Your task to perform on an android device: Open my contact list Image 0: 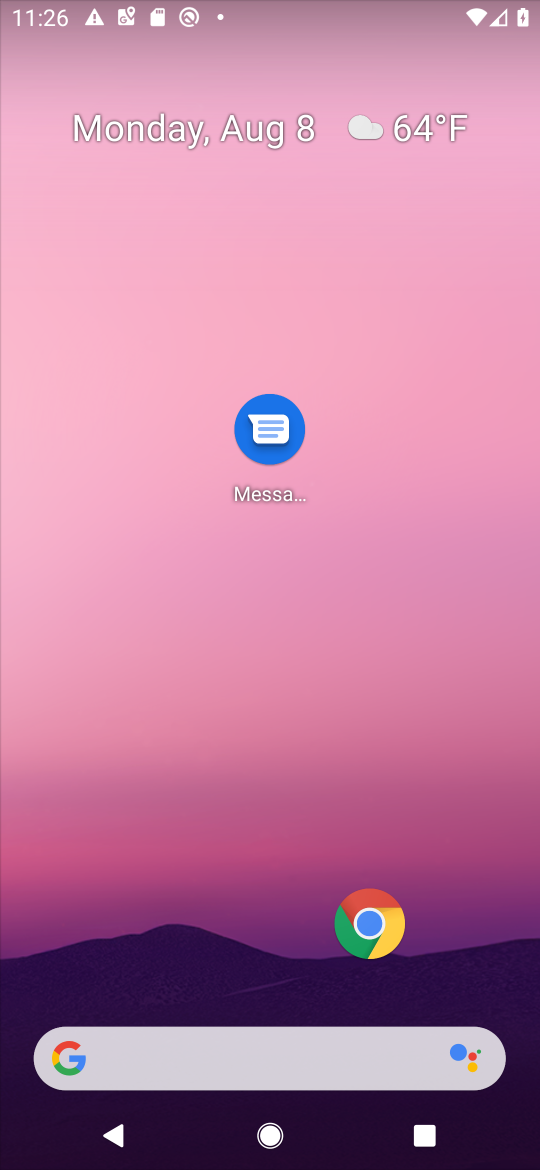
Step 0: drag from (46, 1097) to (222, 357)
Your task to perform on an android device: Open my contact list Image 1: 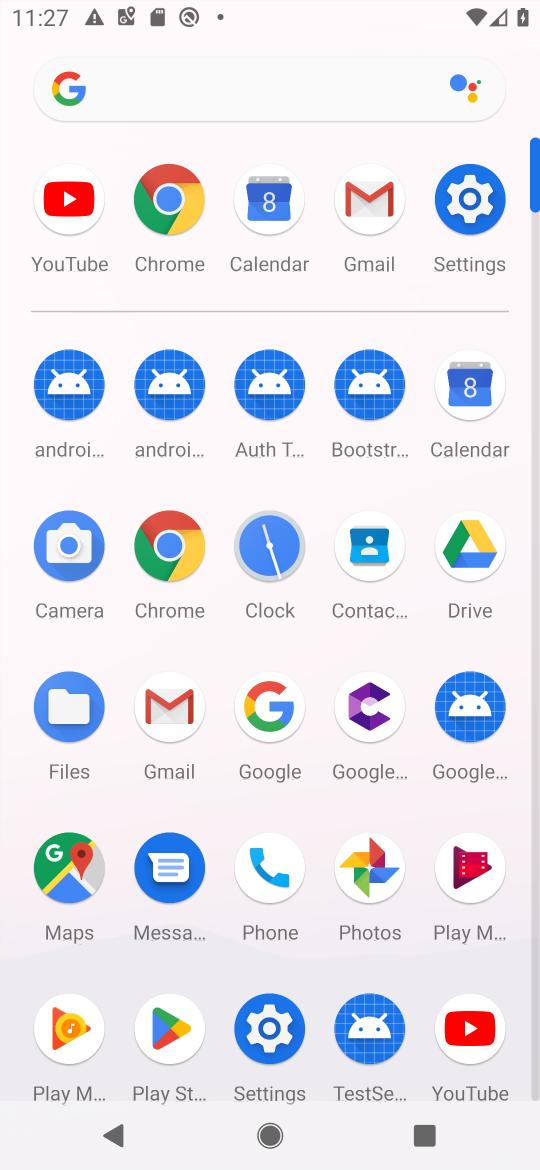
Step 1: click (269, 890)
Your task to perform on an android device: Open my contact list Image 2: 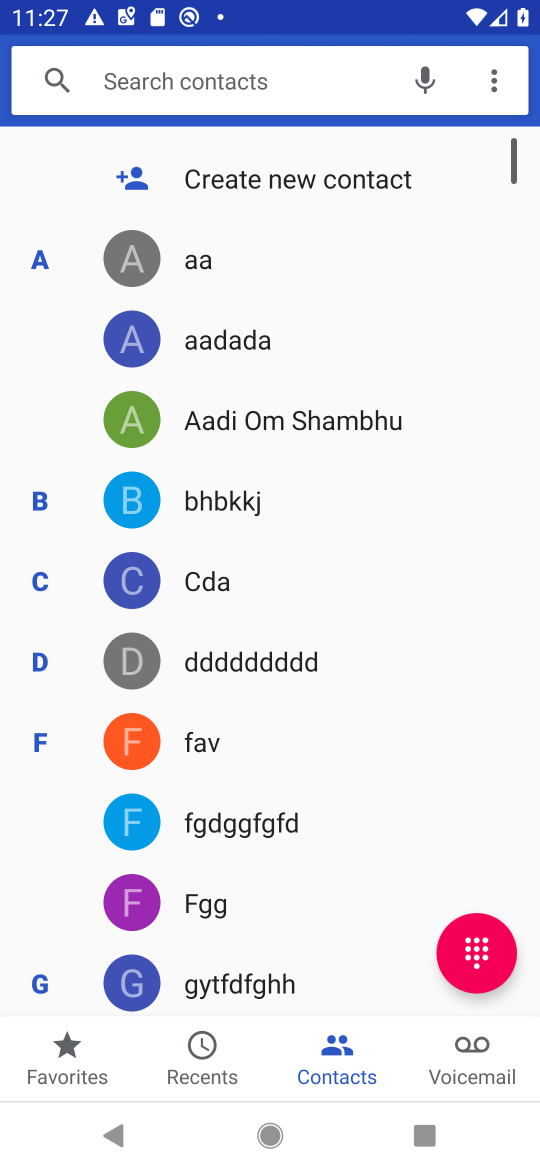
Step 2: task complete